Your task to perform on an android device: add a label to a message in the gmail app Image 0: 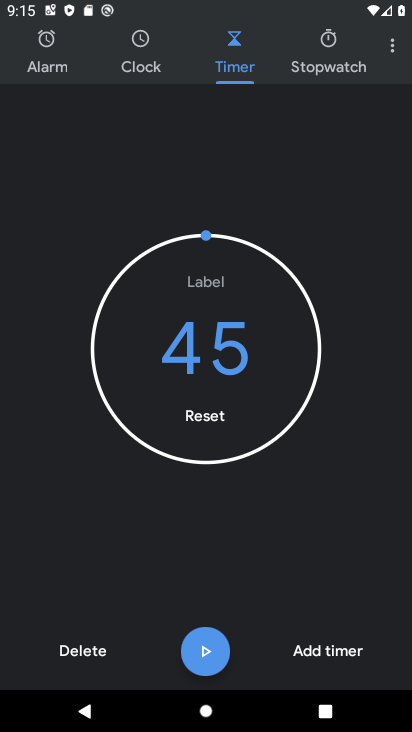
Step 0: press home button
Your task to perform on an android device: add a label to a message in the gmail app Image 1: 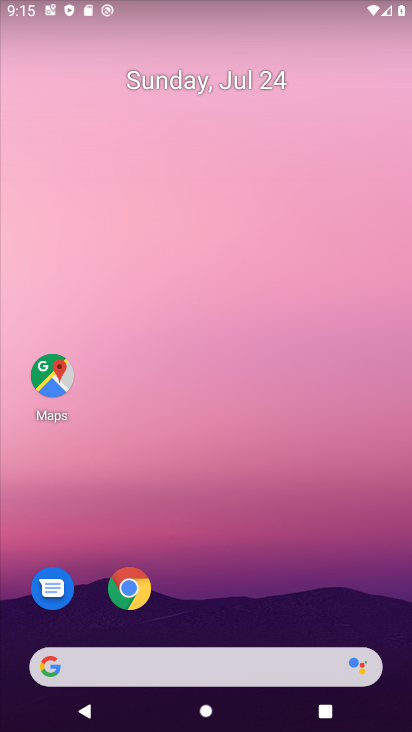
Step 1: drag from (246, 634) to (241, 19)
Your task to perform on an android device: add a label to a message in the gmail app Image 2: 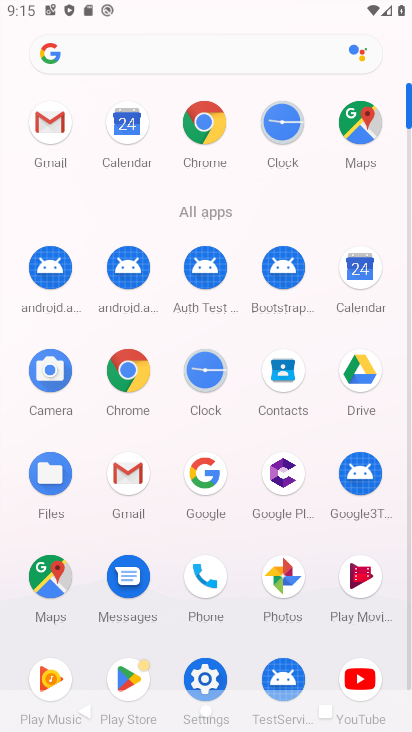
Step 2: click (50, 138)
Your task to perform on an android device: add a label to a message in the gmail app Image 3: 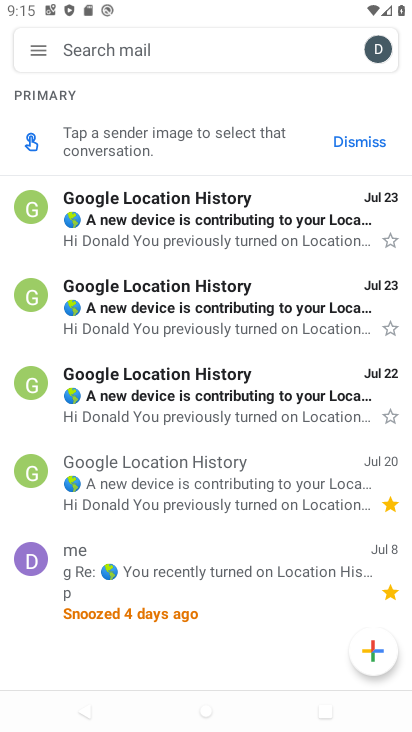
Step 3: click (42, 53)
Your task to perform on an android device: add a label to a message in the gmail app Image 4: 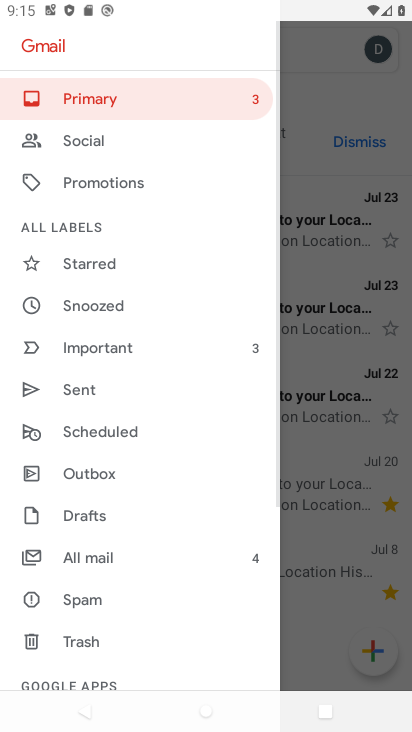
Step 4: click (102, 561)
Your task to perform on an android device: add a label to a message in the gmail app Image 5: 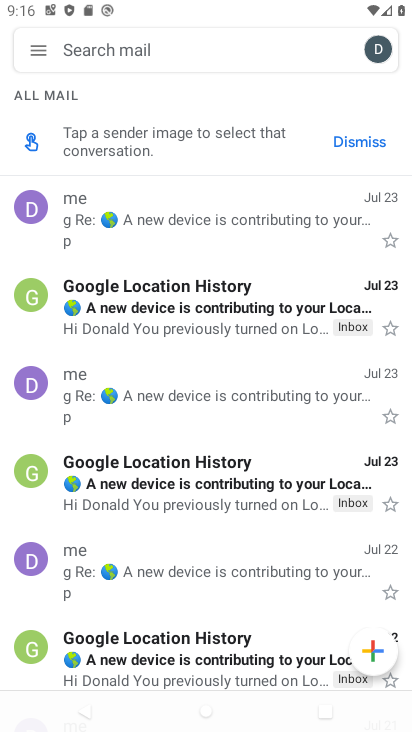
Step 5: click (208, 227)
Your task to perform on an android device: add a label to a message in the gmail app Image 6: 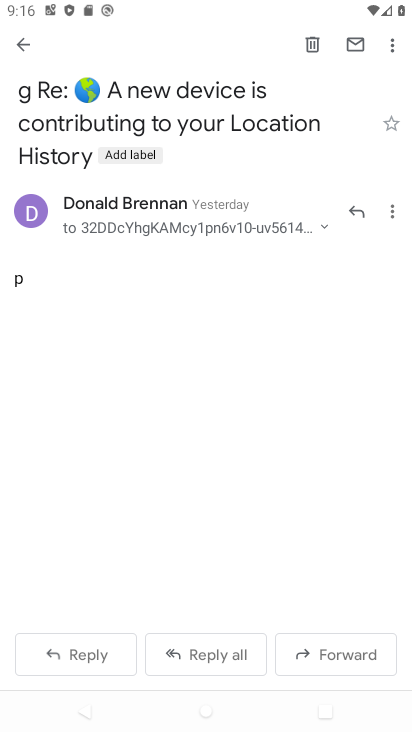
Step 6: click (127, 154)
Your task to perform on an android device: add a label to a message in the gmail app Image 7: 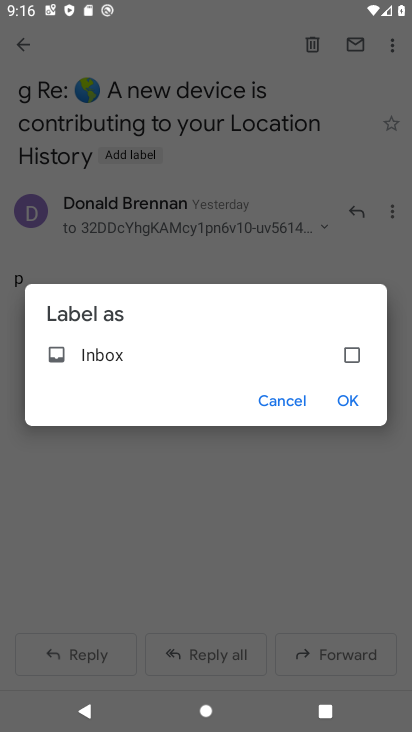
Step 7: click (348, 354)
Your task to perform on an android device: add a label to a message in the gmail app Image 8: 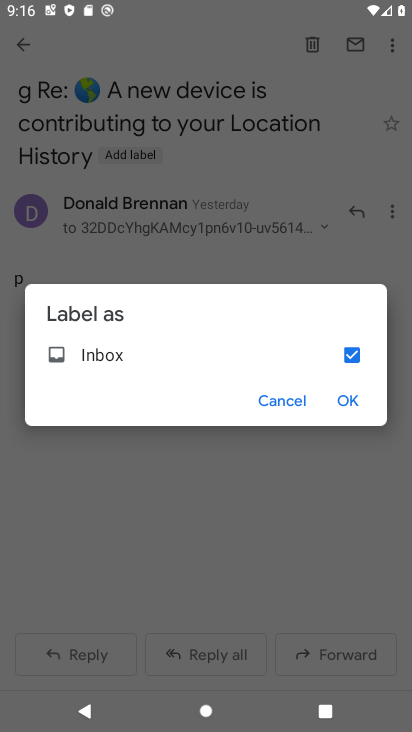
Step 8: click (352, 403)
Your task to perform on an android device: add a label to a message in the gmail app Image 9: 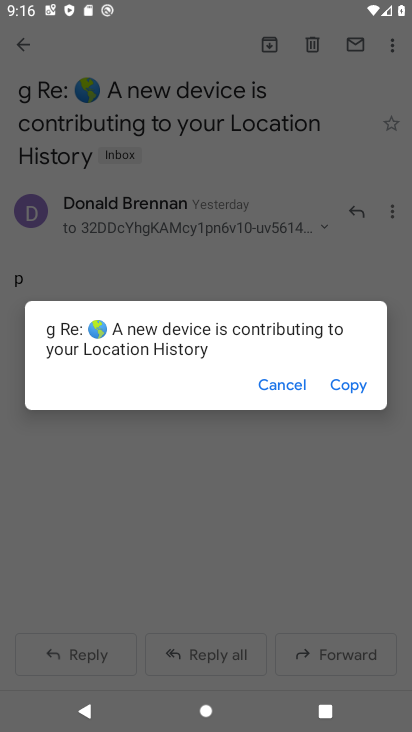
Step 9: click (284, 392)
Your task to perform on an android device: add a label to a message in the gmail app Image 10: 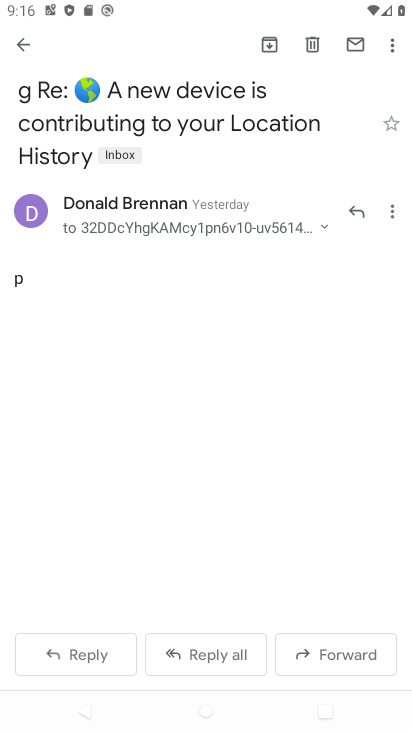
Step 10: task complete